Your task to perform on an android device: open app "File Manager" (install if not already installed) Image 0: 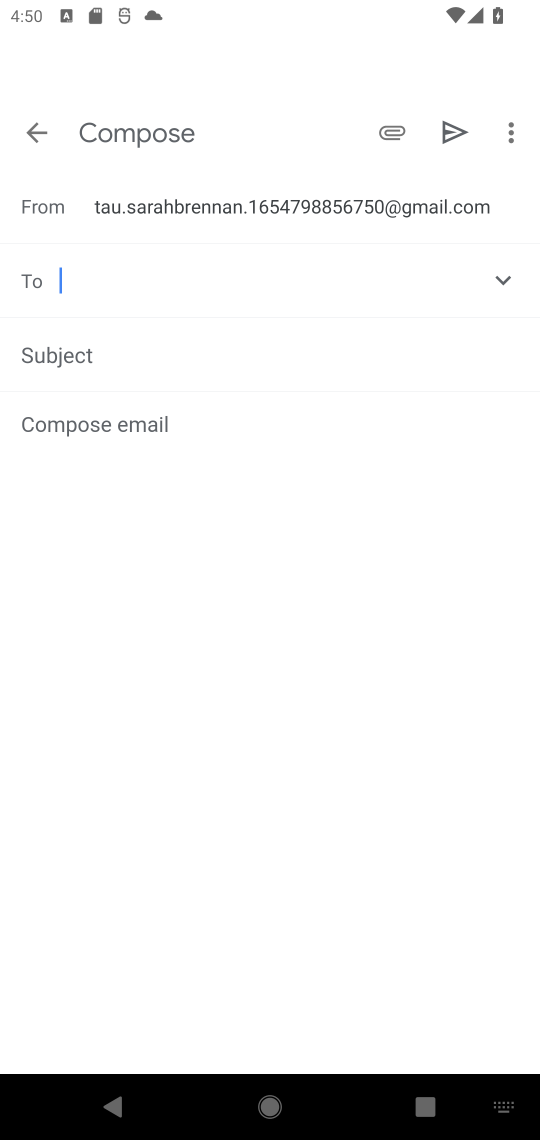
Step 0: press home button
Your task to perform on an android device: open app "File Manager" (install if not already installed) Image 1: 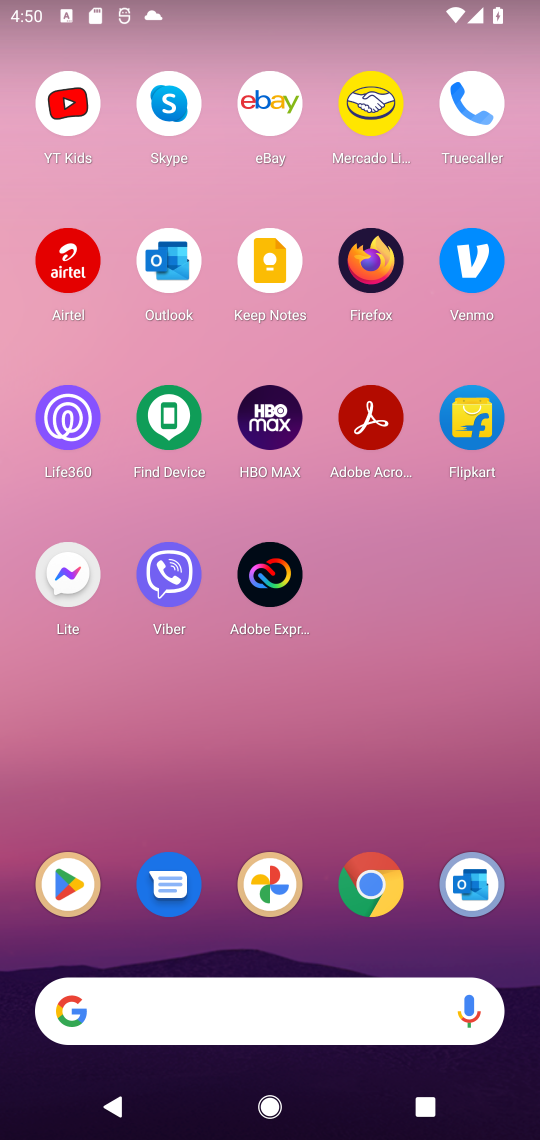
Step 1: click (65, 891)
Your task to perform on an android device: open app "File Manager" (install if not already installed) Image 2: 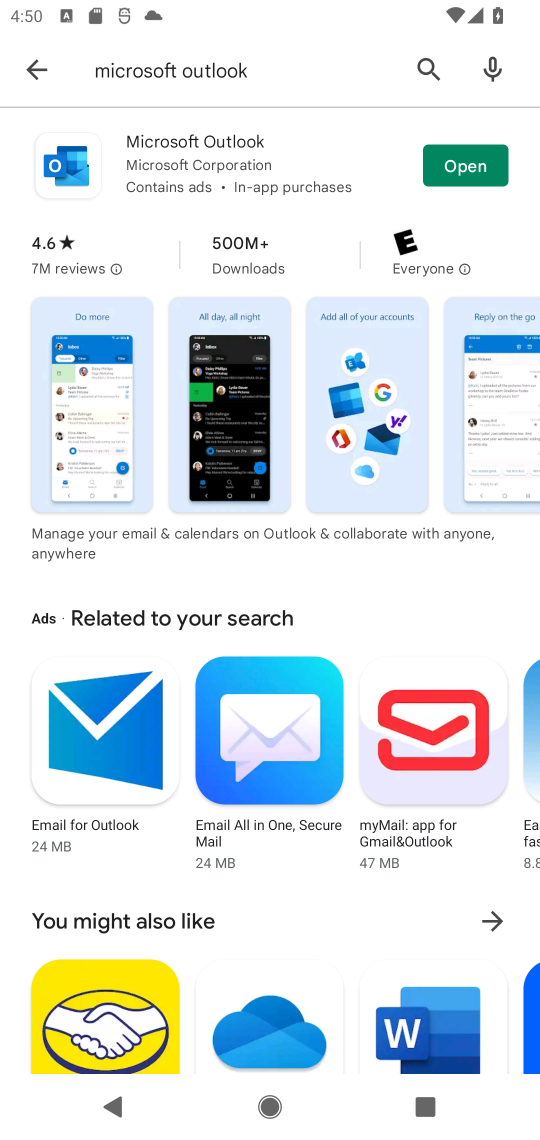
Step 2: click (32, 68)
Your task to perform on an android device: open app "File Manager" (install if not already installed) Image 3: 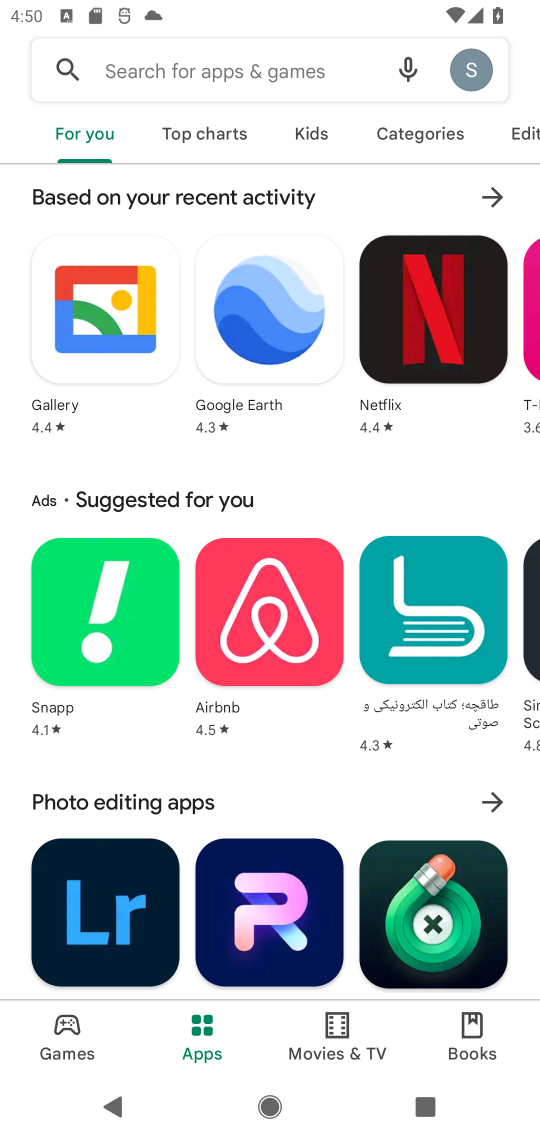
Step 3: click (151, 63)
Your task to perform on an android device: open app "File Manager" (install if not already installed) Image 4: 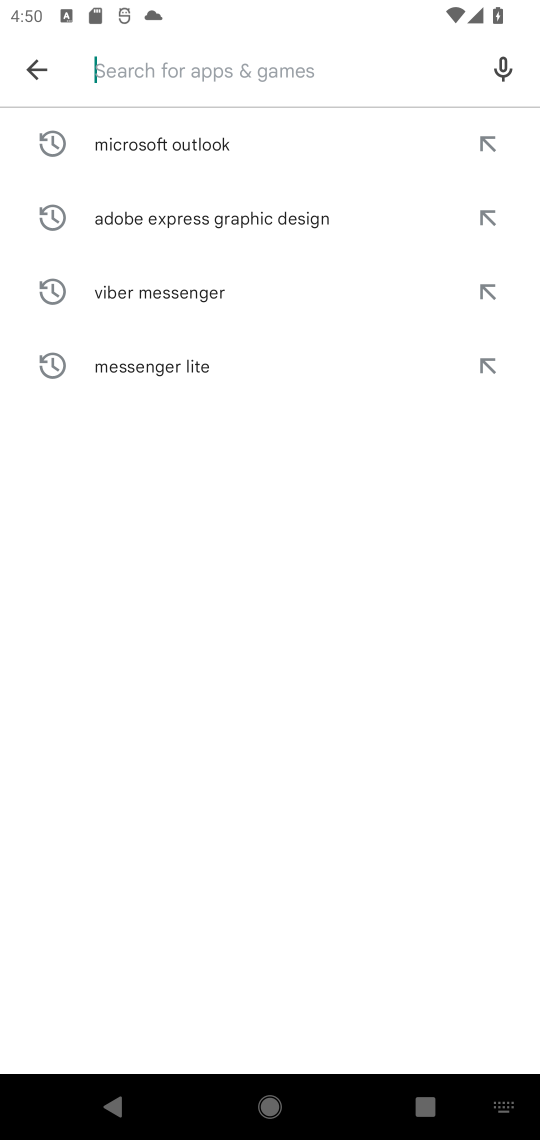
Step 4: type "File Manager"
Your task to perform on an android device: open app "File Manager" (install if not already installed) Image 5: 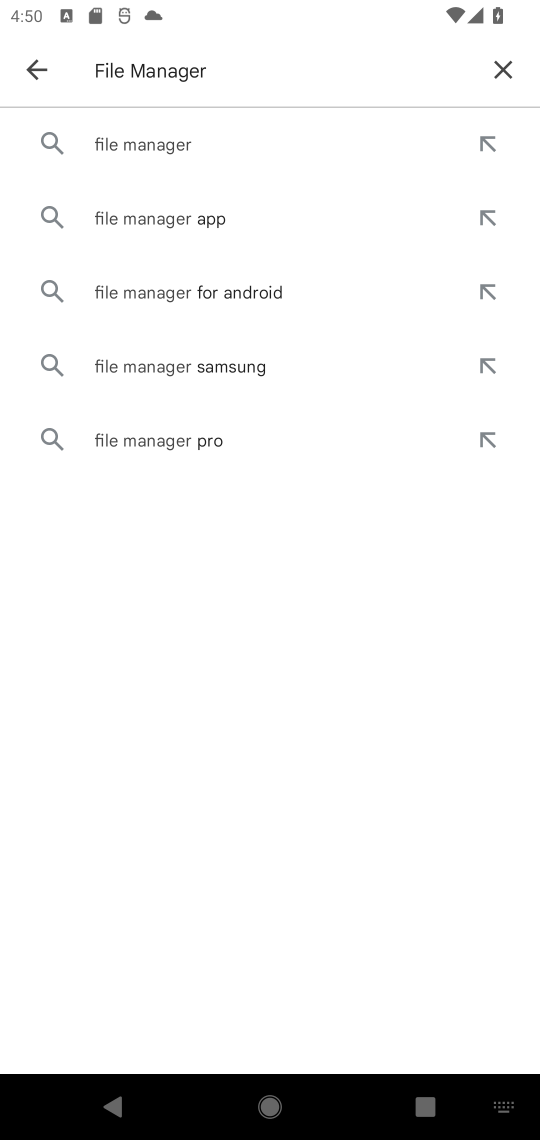
Step 5: click (131, 140)
Your task to perform on an android device: open app "File Manager" (install if not already installed) Image 6: 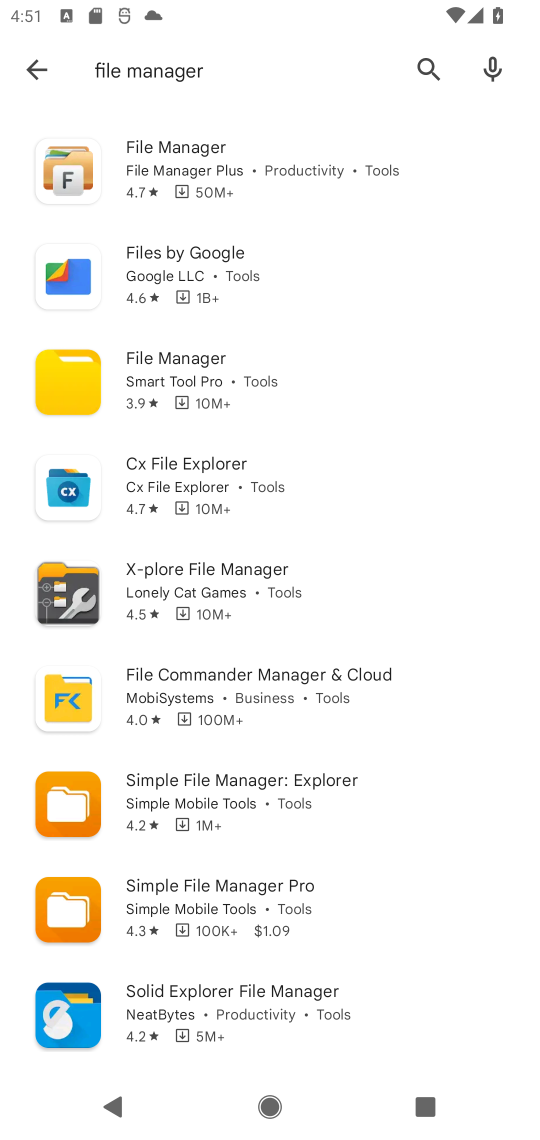
Step 6: click (164, 172)
Your task to perform on an android device: open app "File Manager" (install if not already installed) Image 7: 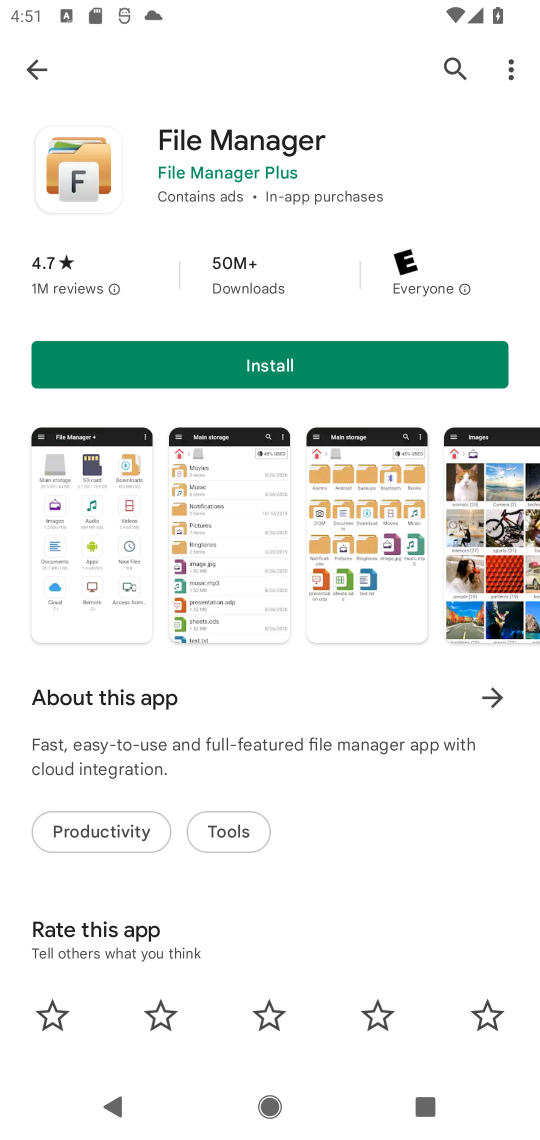
Step 7: click (269, 364)
Your task to perform on an android device: open app "File Manager" (install if not already installed) Image 8: 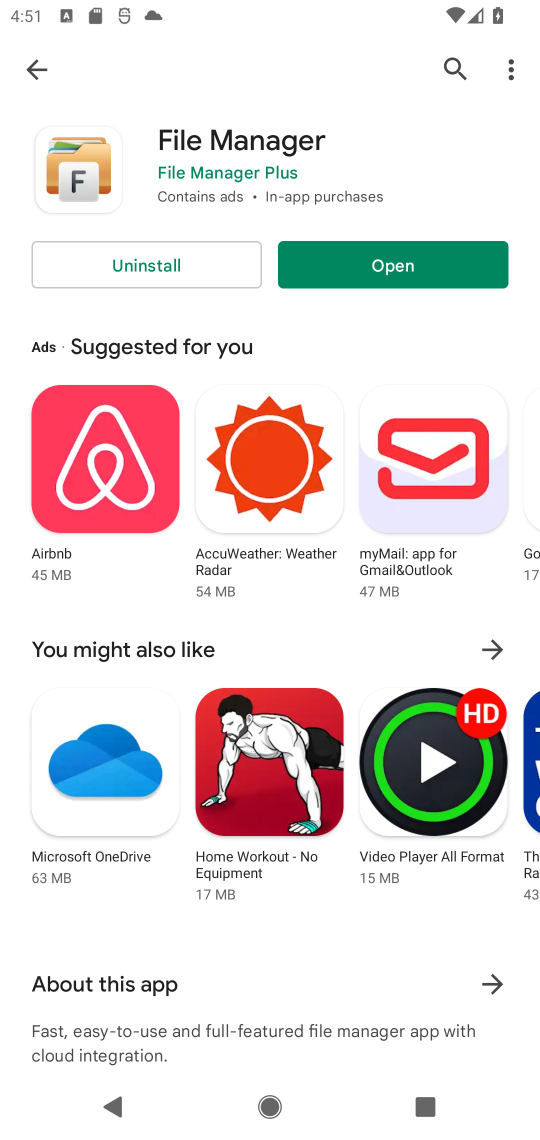
Step 8: click (413, 268)
Your task to perform on an android device: open app "File Manager" (install if not already installed) Image 9: 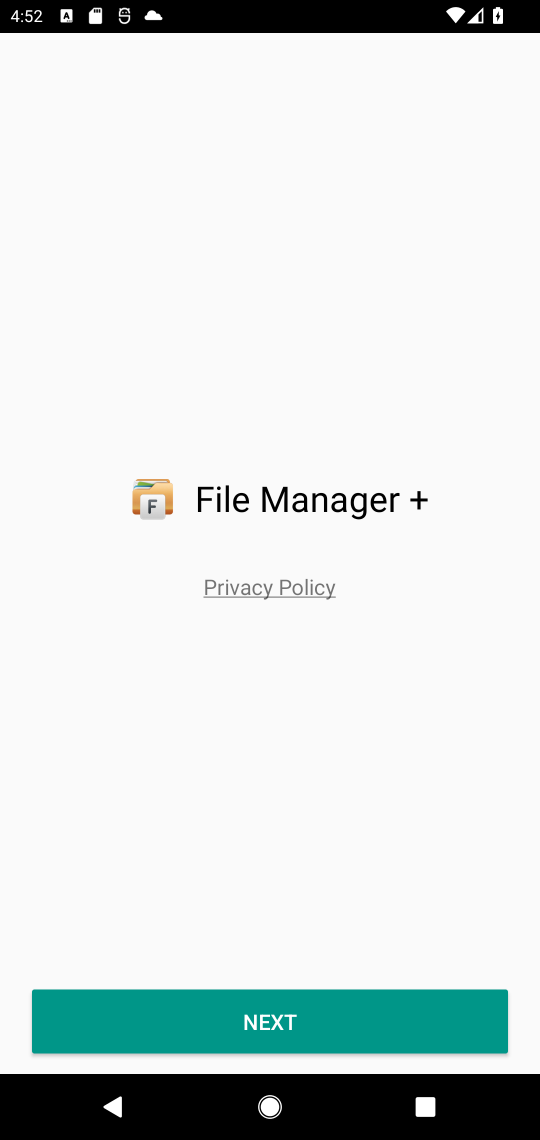
Step 9: task complete